Your task to perform on an android device: open app "Yahoo Mail" (install if not already installed) Image 0: 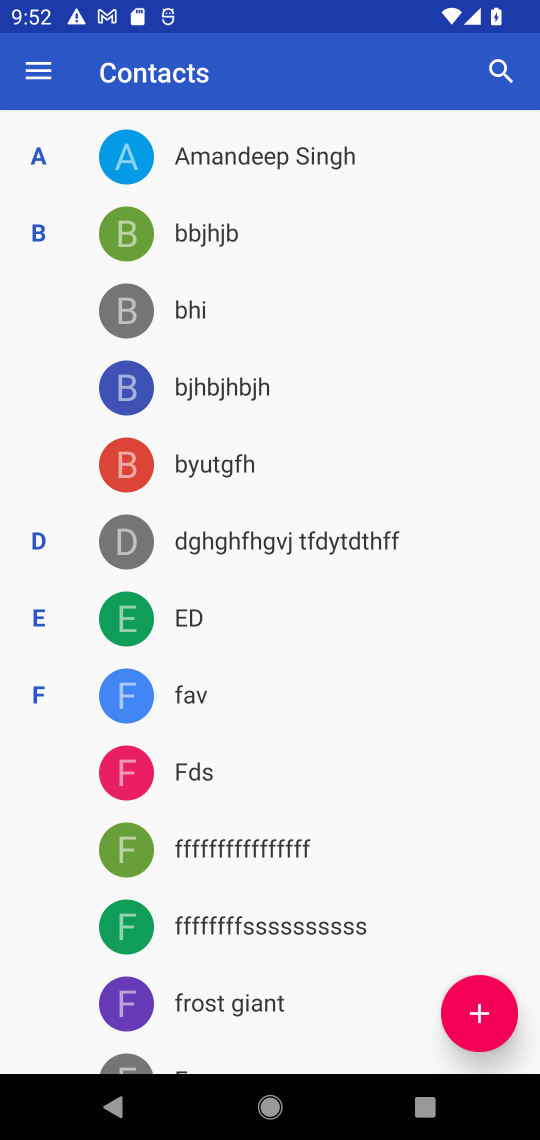
Step 0: press home button
Your task to perform on an android device: open app "Yahoo Mail" (install if not already installed) Image 1: 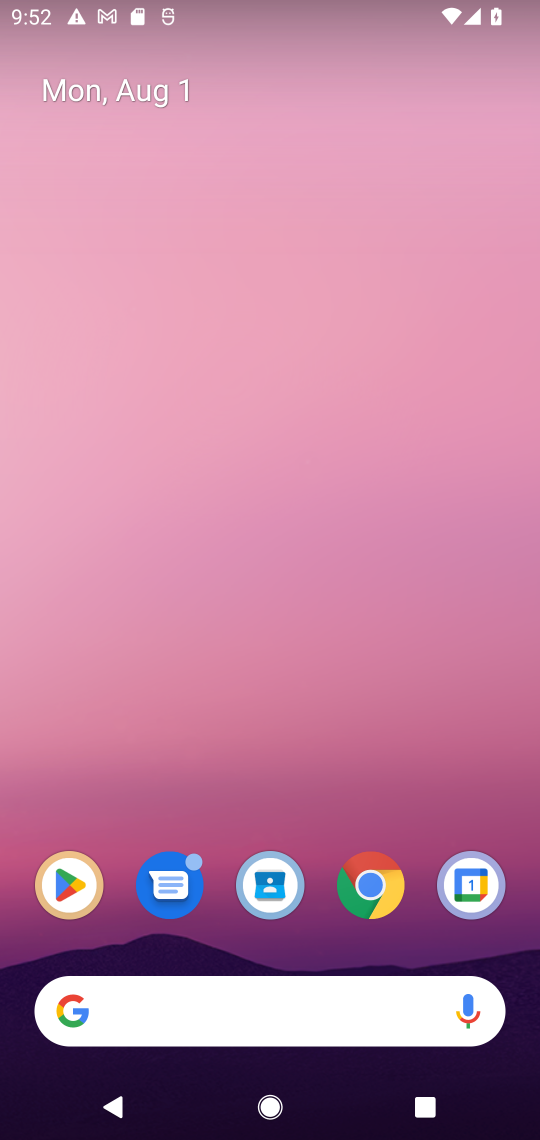
Step 1: drag from (297, 1114) to (260, 40)
Your task to perform on an android device: open app "Yahoo Mail" (install if not already installed) Image 2: 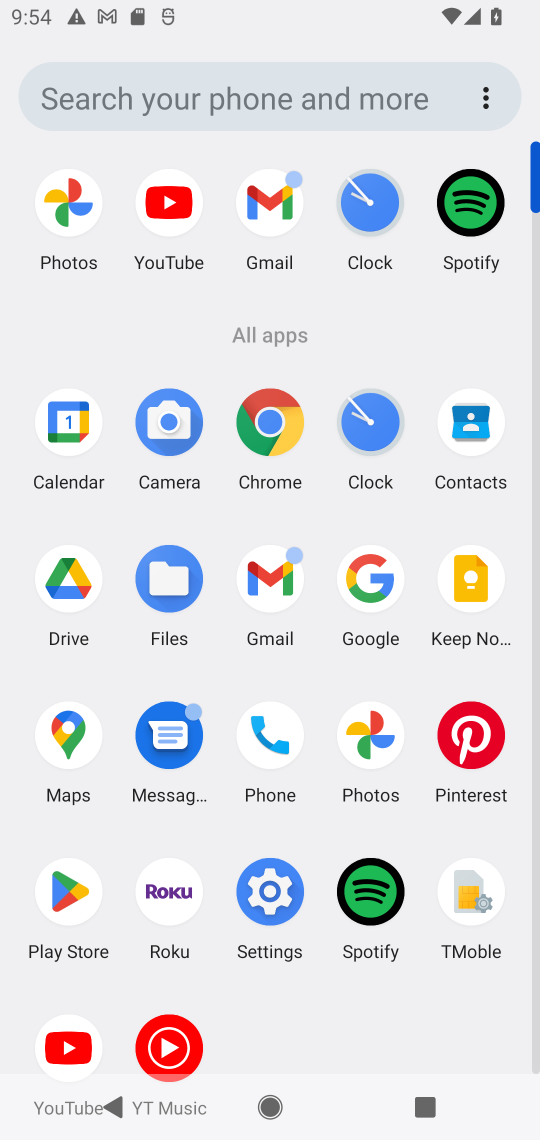
Step 2: click (69, 897)
Your task to perform on an android device: open app "Yahoo Mail" (install if not already installed) Image 3: 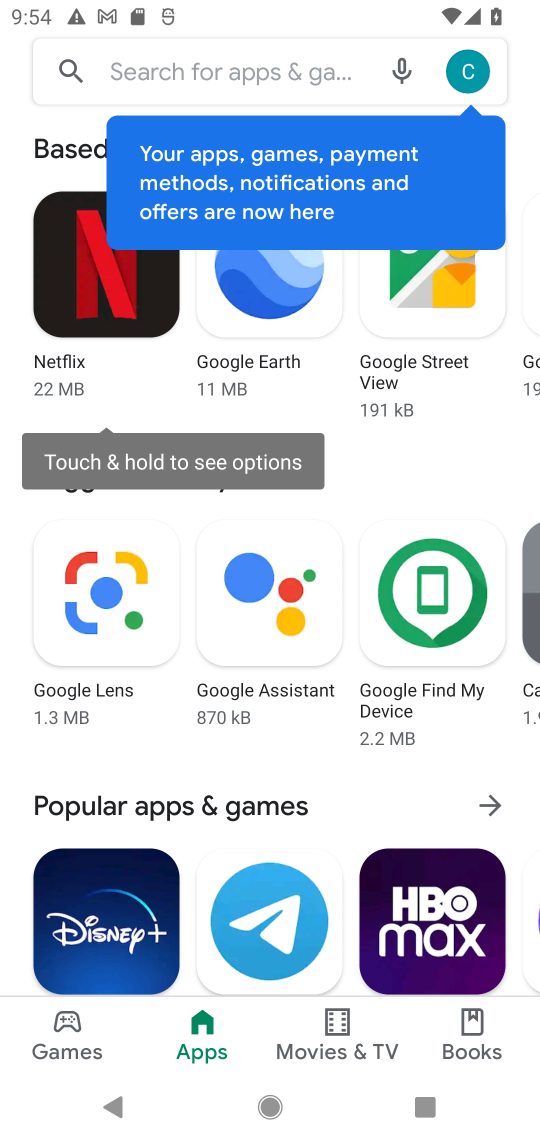
Step 3: click (273, 61)
Your task to perform on an android device: open app "Yahoo Mail" (install if not already installed) Image 4: 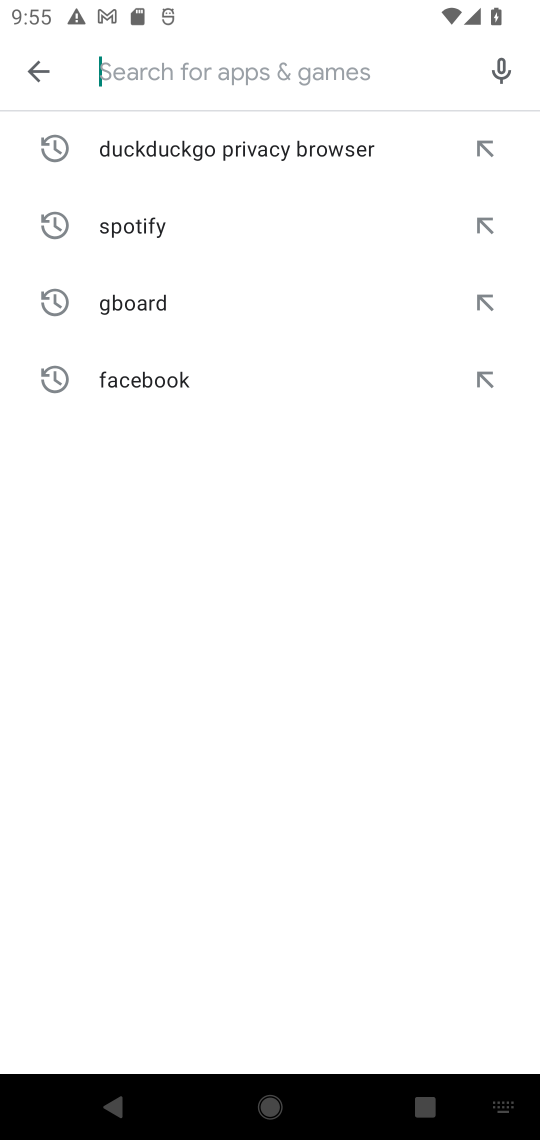
Step 4: type "Yahoo Mail"
Your task to perform on an android device: open app "Yahoo Mail" (install if not already installed) Image 5: 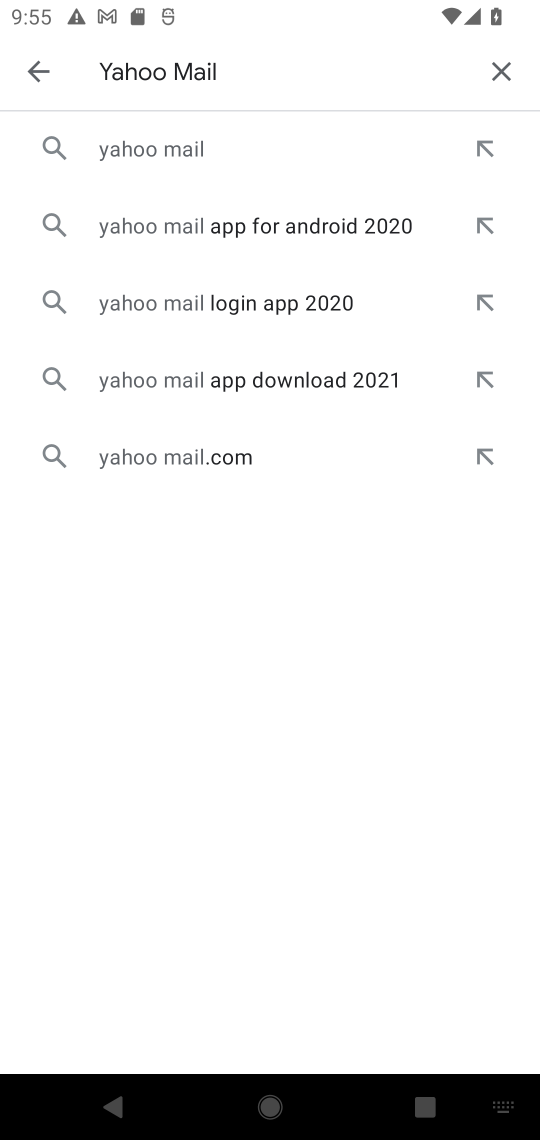
Step 5: click (166, 148)
Your task to perform on an android device: open app "Yahoo Mail" (install if not already installed) Image 6: 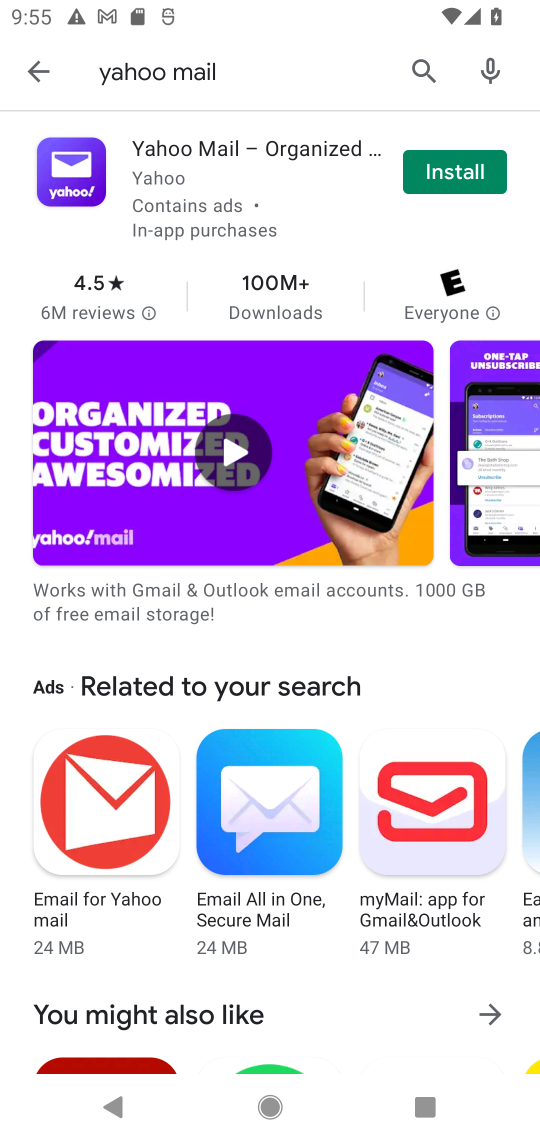
Step 6: click (450, 179)
Your task to perform on an android device: open app "Yahoo Mail" (install if not already installed) Image 7: 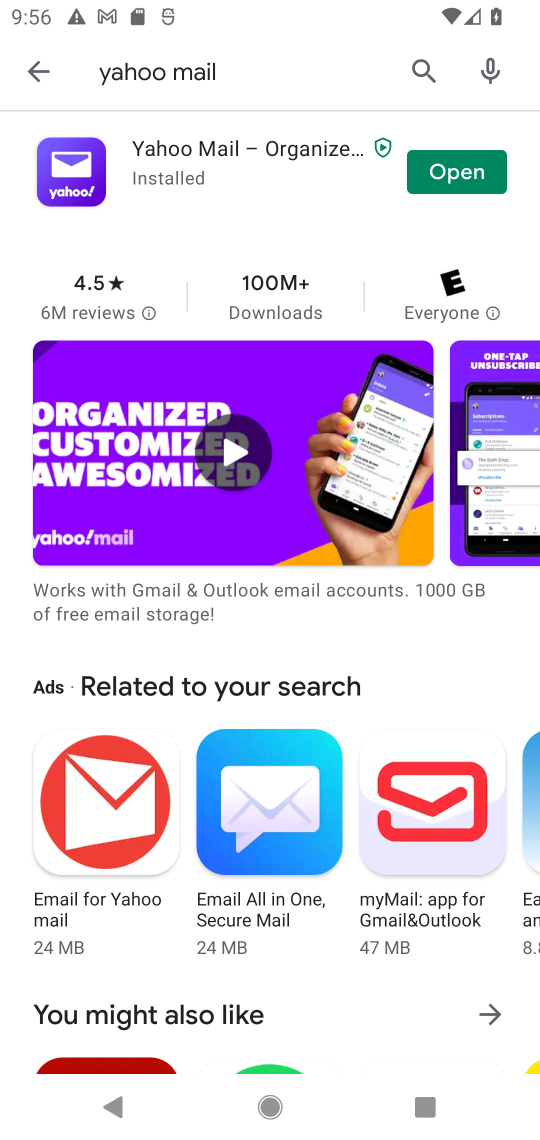
Step 7: task complete